Your task to perform on an android device: delete the emails in spam in the gmail app Image 0: 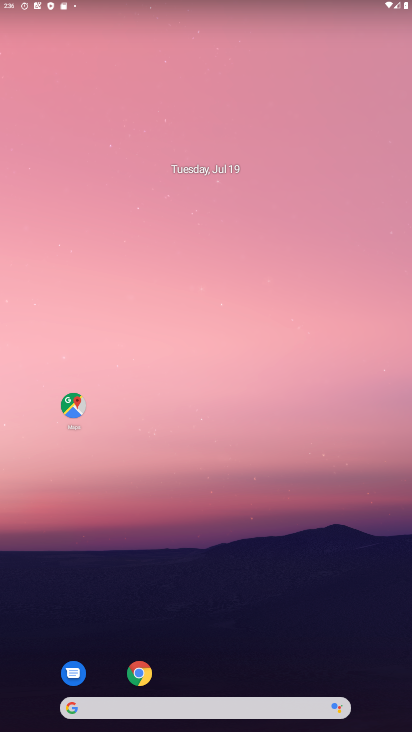
Step 0: drag from (239, 641) to (276, 3)
Your task to perform on an android device: delete the emails in spam in the gmail app Image 1: 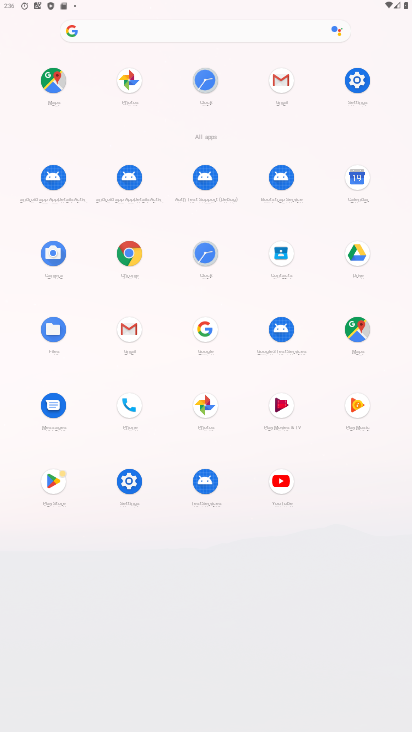
Step 1: click (131, 334)
Your task to perform on an android device: delete the emails in spam in the gmail app Image 2: 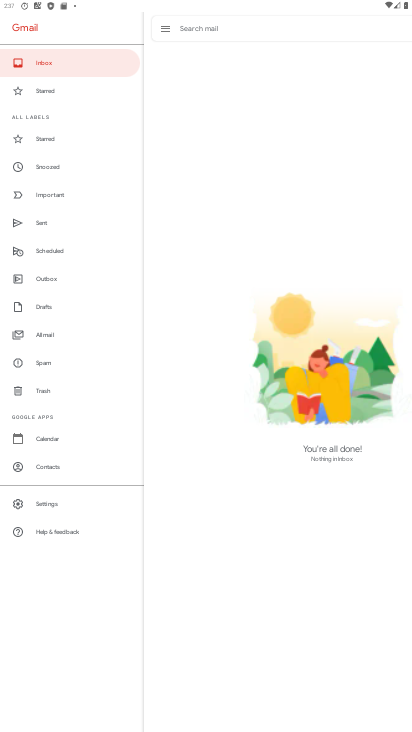
Step 2: click (32, 363)
Your task to perform on an android device: delete the emails in spam in the gmail app Image 3: 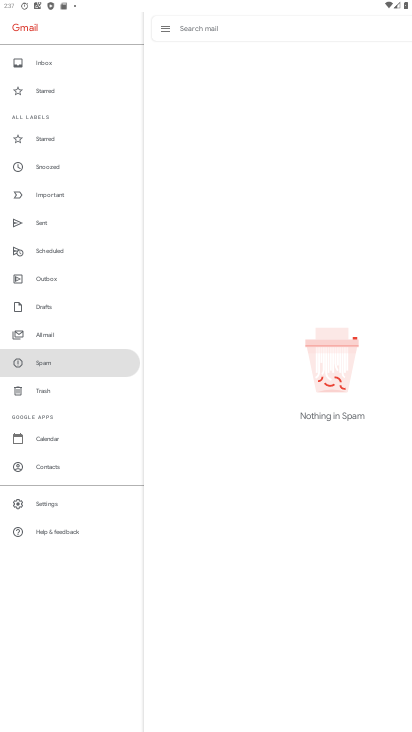
Step 3: task complete